Your task to perform on an android device: show emergency info Image 0: 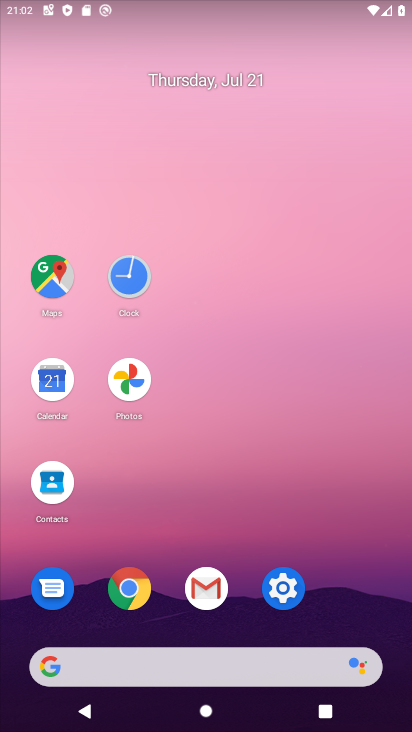
Step 0: click (281, 587)
Your task to perform on an android device: show emergency info Image 1: 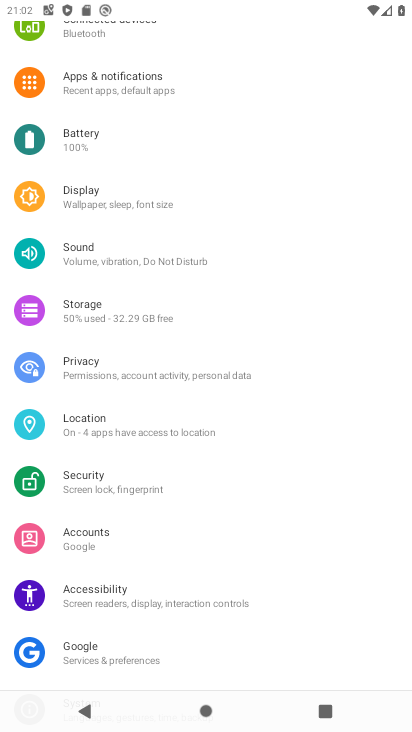
Step 1: drag from (232, 542) to (258, 624)
Your task to perform on an android device: show emergency info Image 2: 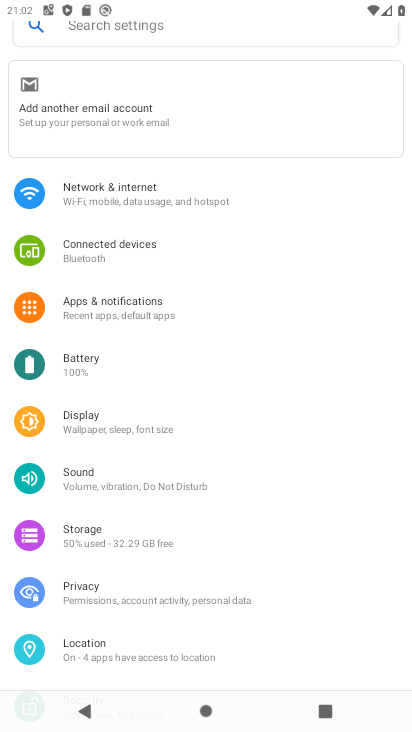
Step 2: drag from (258, 624) to (295, 204)
Your task to perform on an android device: show emergency info Image 3: 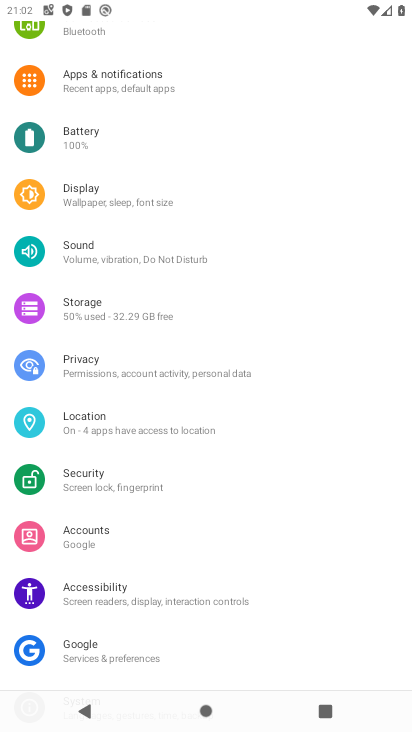
Step 3: drag from (286, 631) to (294, 191)
Your task to perform on an android device: show emergency info Image 4: 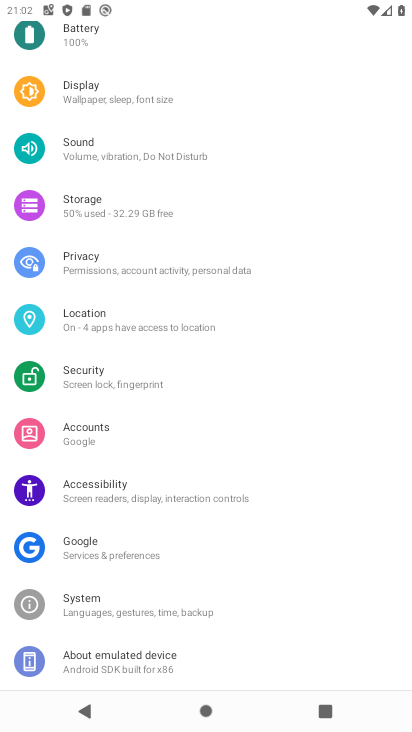
Step 4: click (129, 652)
Your task to perform on an android device: show emergency info Image 5: 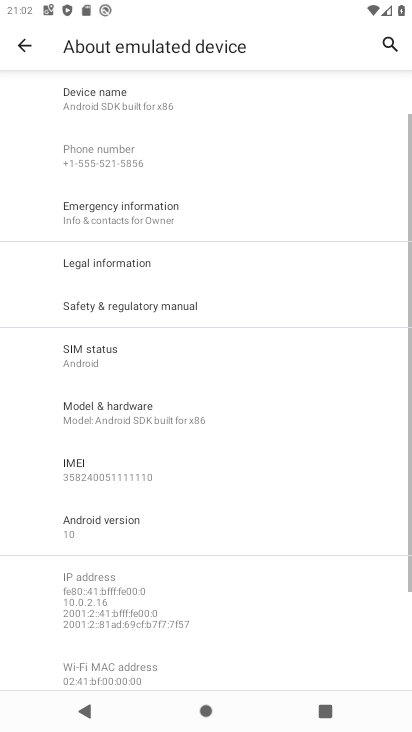
Step 5: click (115, 206)
Your task to perform on an android device: show emergency info Image 6: 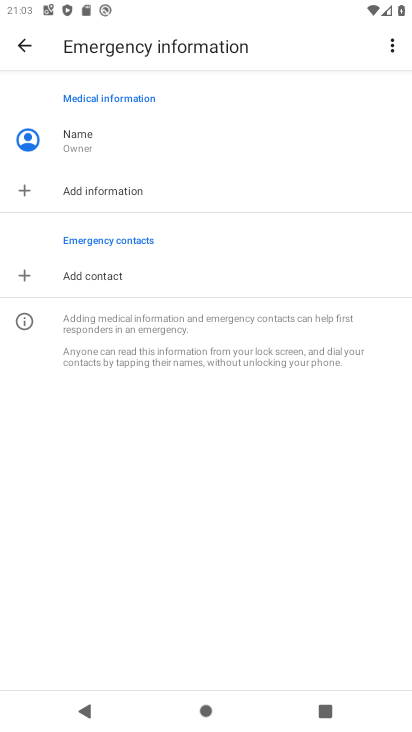
Step 6: task complete